Your task to perform on an android device: Go to settings Image 0: 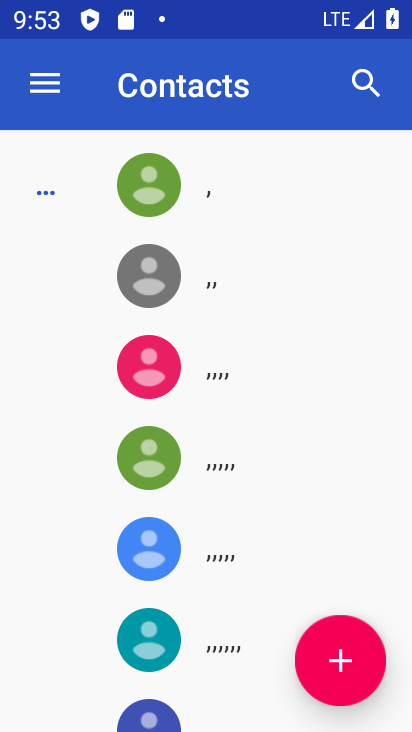
Step 0: press home button
Your task to perform on an android device: Go to settings Image 1: 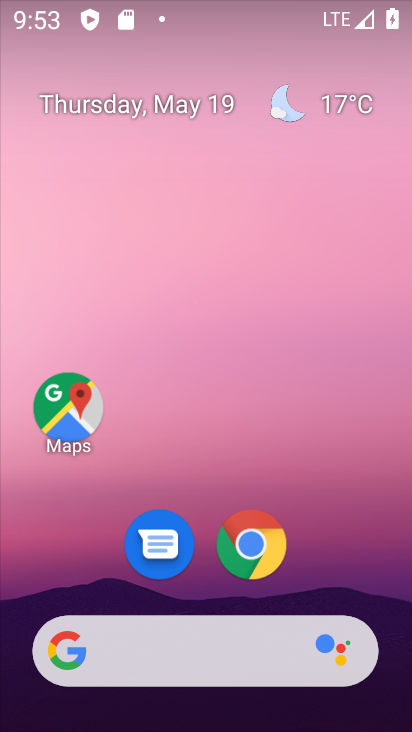
Step 1: click (213, 717)
Your task to perform on an android device: Go to settings Image 2: 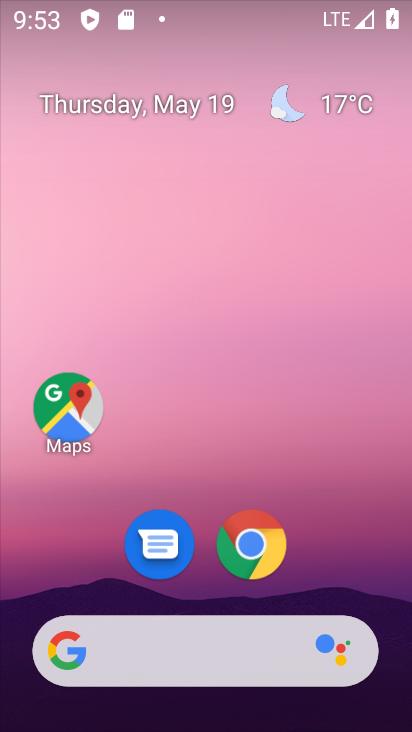
Step 2: drag from (217, 674) to (305, 130)
Your task to perform on an android device: Go to settings Image 3: 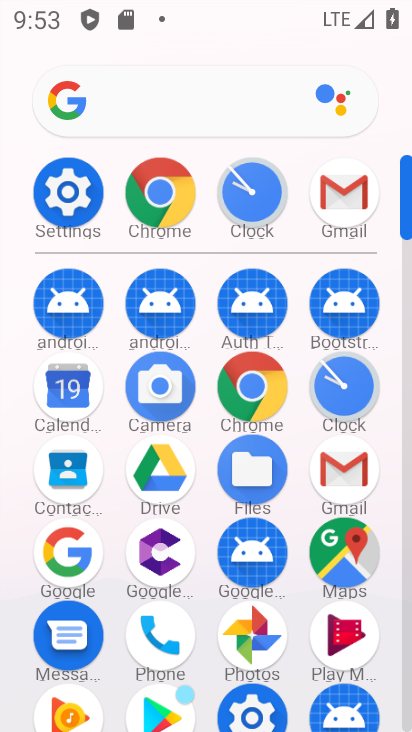
Step 3: click (64, 207)
Your task to perform on an android device: Go to settings Image 4: 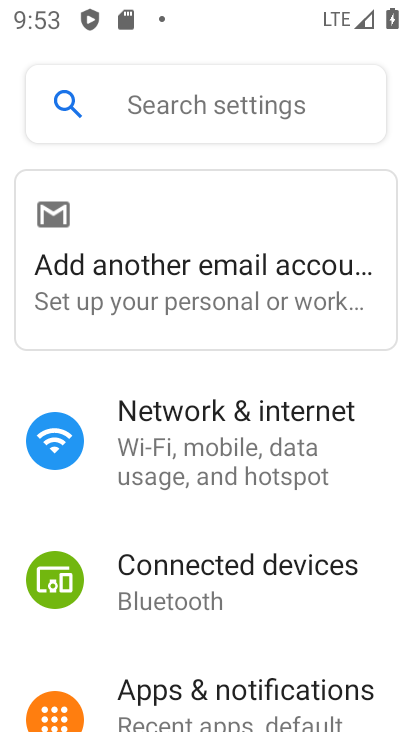
Step 4: task complete